Your task to perform on an android device: Show me popular games on the Play Store Image 0: 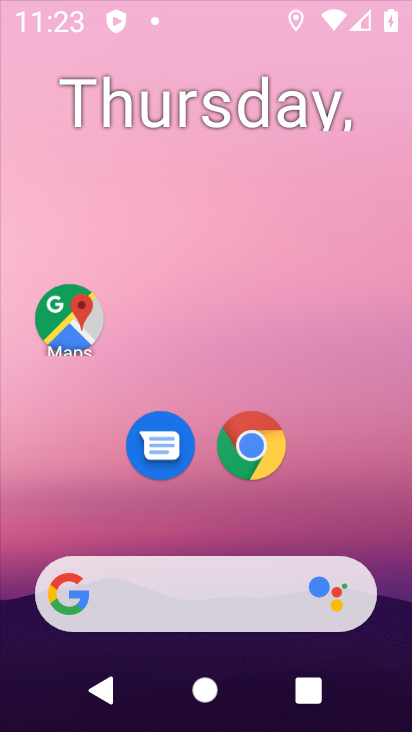
Step 0: drag from (394, 586) to (333, 150)
Your task to perform on an android device: Show me popular games on the Play Store Image 1: 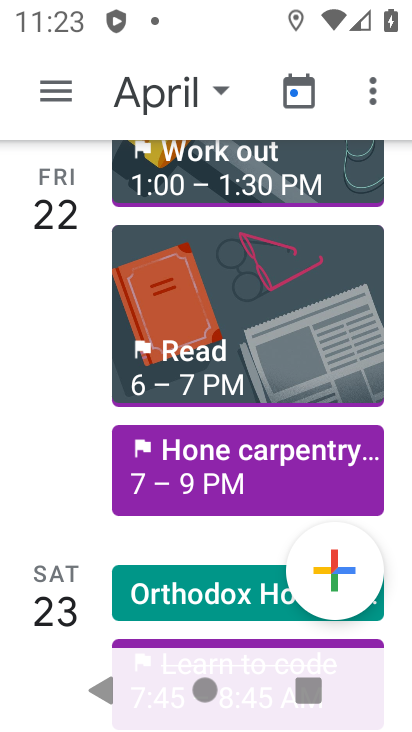
Step 1: press home button
Your task to perform on an android device: Show me popular games on the Play Store Image 2: 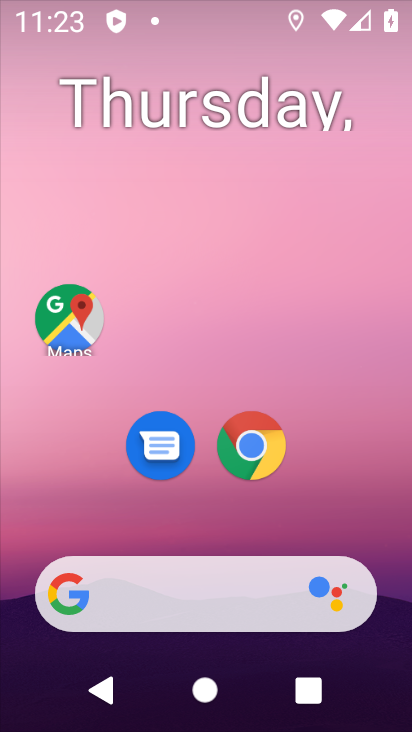
Step 2: drag from (389, 615) to (216, 105)
Your task to perform on an android device: Show me popular games on the Play Store Image 3: 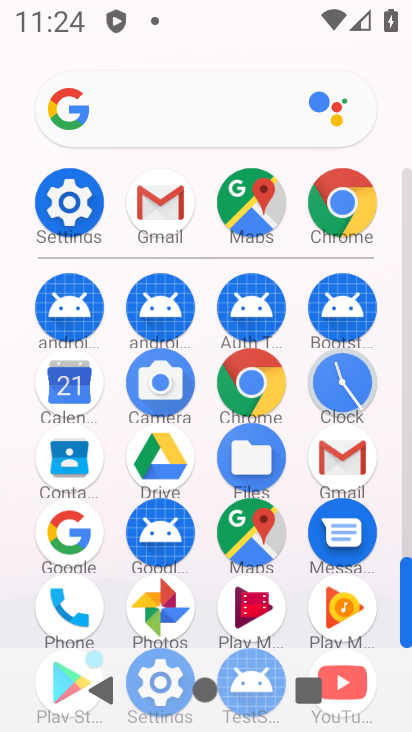
Step 3: drag from (107, 617) to (89, 219)
Your task to perform on an android device: Show me popular games on the Play Store Image 4: 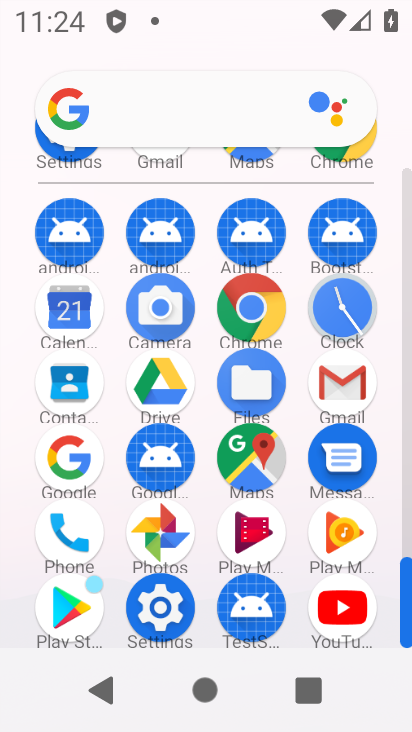
Step 4: click (72, 614)
Your task to perform on an android device: Show me popular games on the Play Store Image 5: 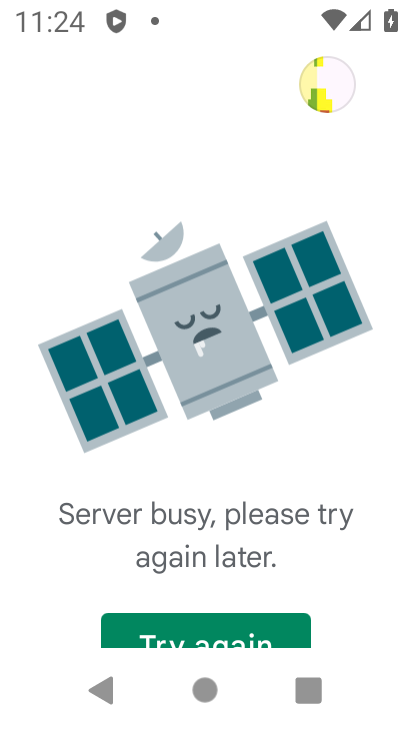
Step 5: click (139, 641)
Your task to perform on an android device: Show me popular games on the Play Store Image 6: 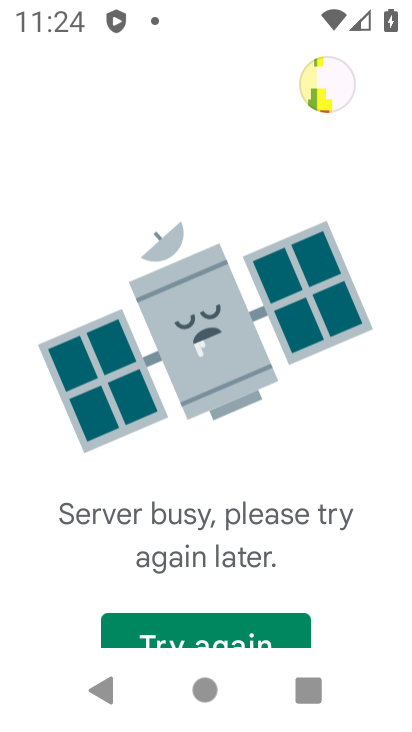
Step 6: click (150, 630)
Your task to perform on an android device: Show me popular games on the Play Store Image 7: 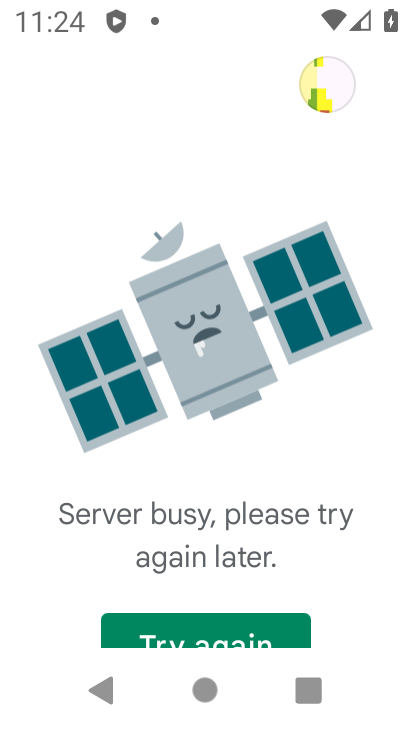
Step 7: task complete